Your task to perform on an android device: Show me recent news Image 0: 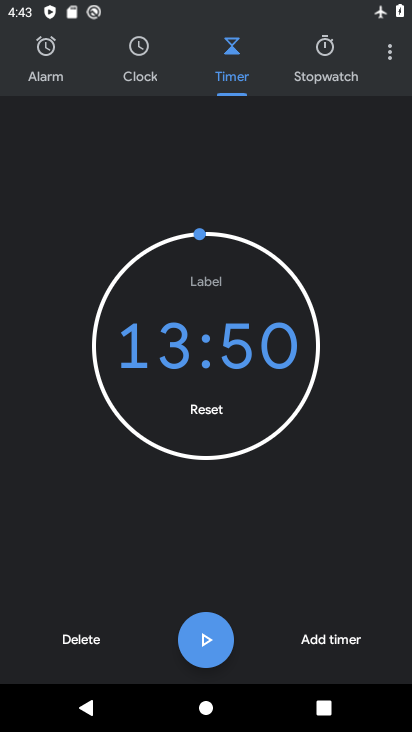
Step 0: press home button
Your task to perform on an android device: Show me recent news Image 1: 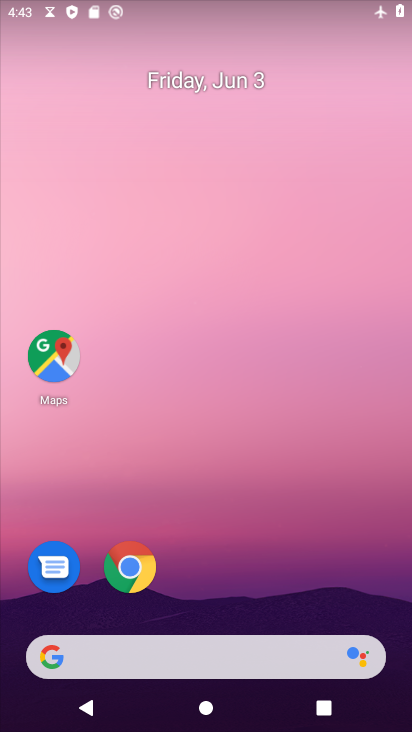
Step 1: drag from (292, 552) to (249, 117)
Your task to perform on an android device: Show me recent news Image 2: 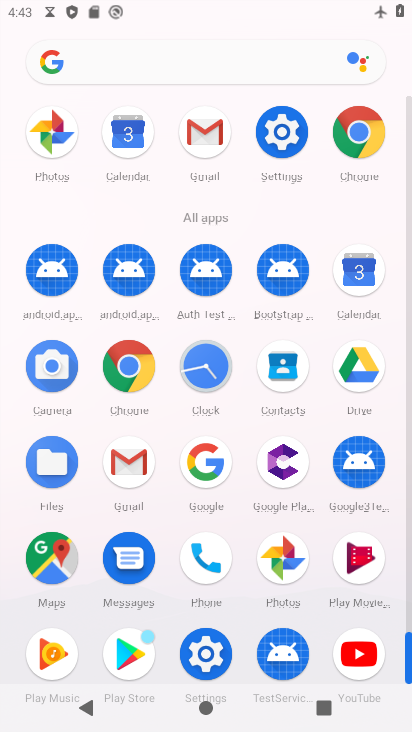
Step 2: click (200, 462)
Your task to perform on an android device: Show me recent news Image 3: 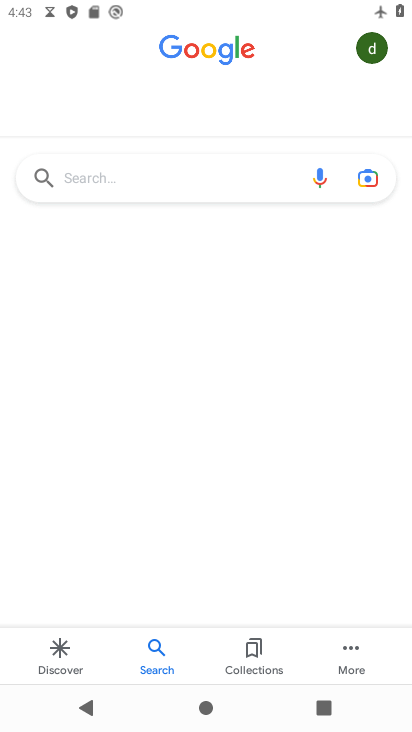
Step 3: click (152, 185)
Your task to perform on an android device: Show me recent news Image 4: 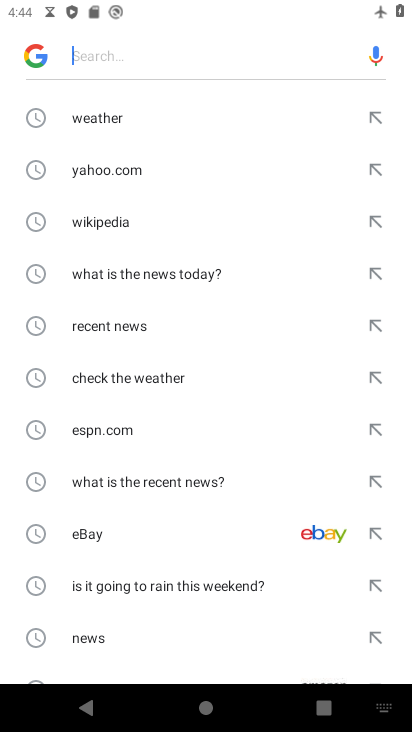
Step 4: type "recent news"
Your task to perform on an android device: Show me recent news Image 5: 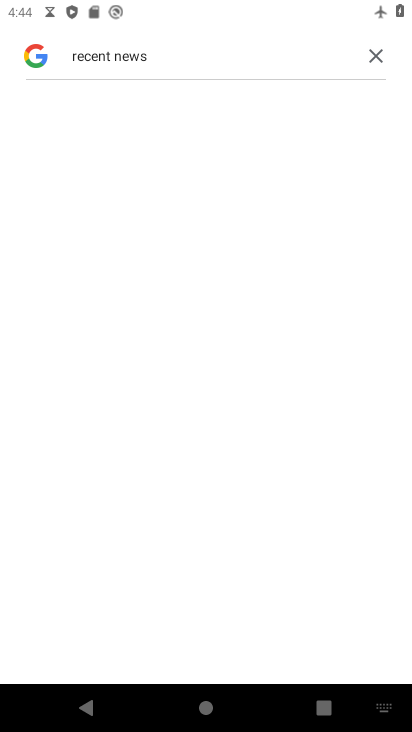
Step 5: task complete